Your task to perform on an android device: turn on notifications settings in the gmail app Image 0: 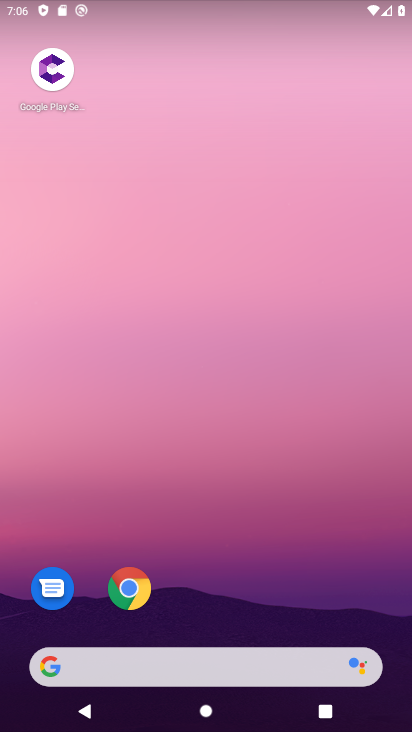
Step 0: drag from (258, 558) to (174, 145)
Your task to perform on an android device: turn on notifications settings in the gmail app Image 1: 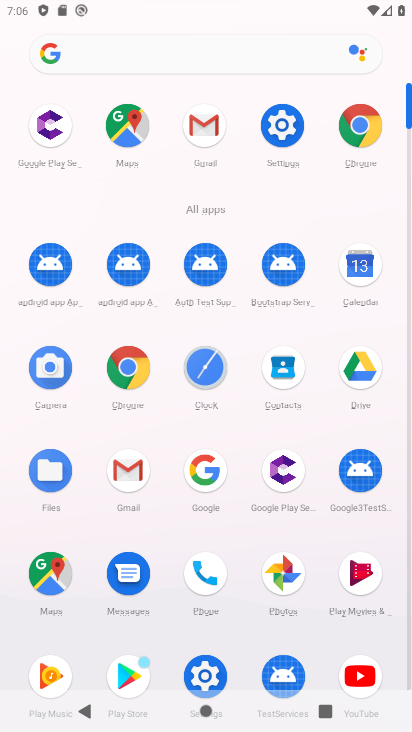
Step 1: click (127, 473)
Your task to perform on an android device: turn on notifications settings in the gmail app Image 2: 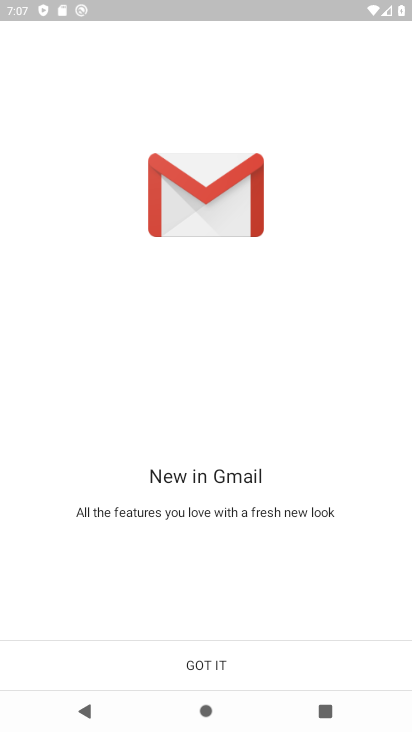
Step 2: click (197, 663)
Your task to perform on an android device: turn on notifications settings in the gmail app Image 3: 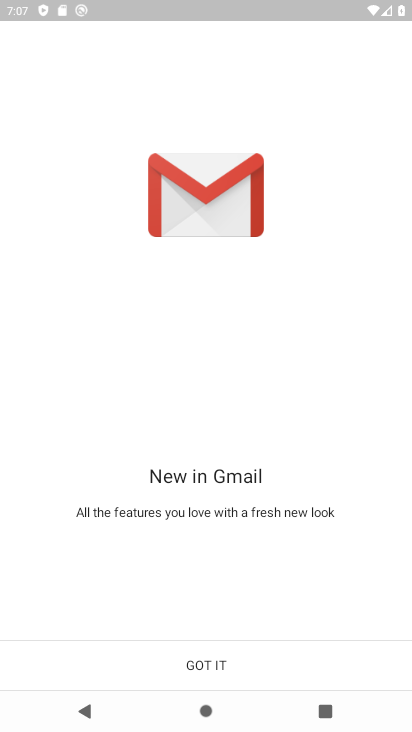
Step 3: click (197, 663)
Your task to perform on an android device: turn on notifications settings in the gmail app Image 4: 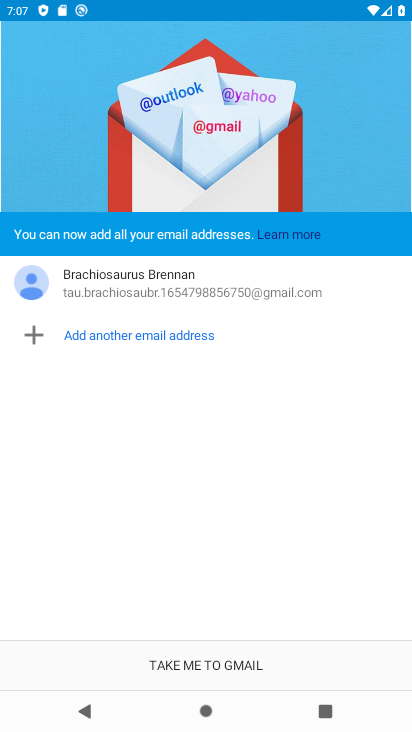
Step 4: click (197, 663)
Your task to perform on an android device: turn on notifications settings in the gmail app Image 5: 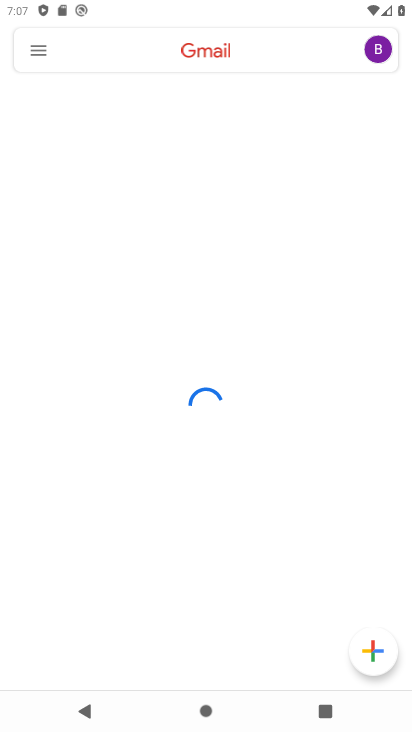
Step 5: click (39, 51)
Your task to perform on an android device: turn on notifications settings in the gmail app Image 6: 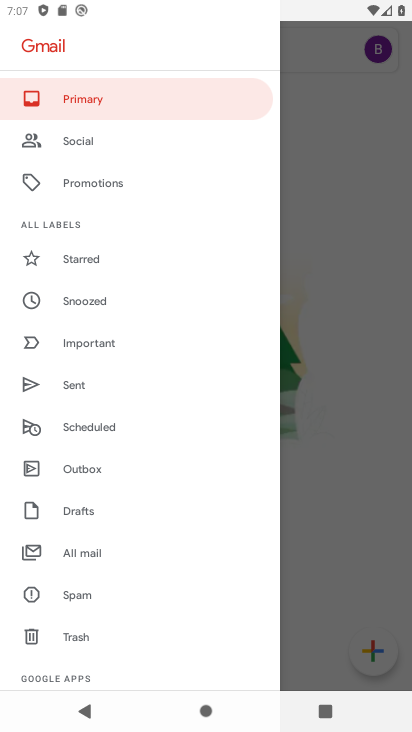
Step 6: drag from (156, 631) to (140, 294)
Your task to perform on an android device: turn on notifications settings in the gmail app Image 7: 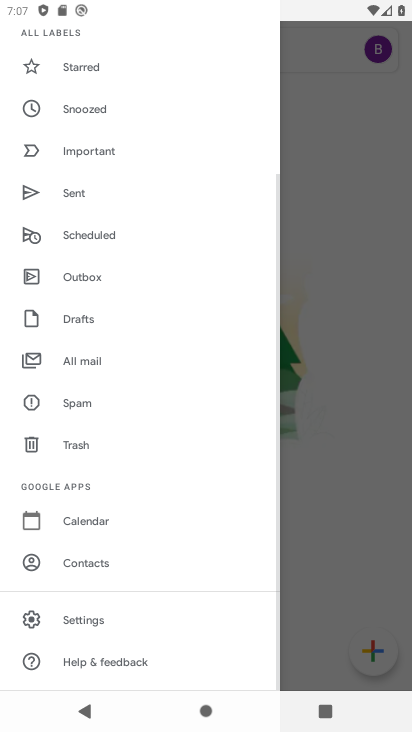
Step 7: click (90, 617)
Your task to perform on an android device: turn on notifications settings in the gmail app Image 8: 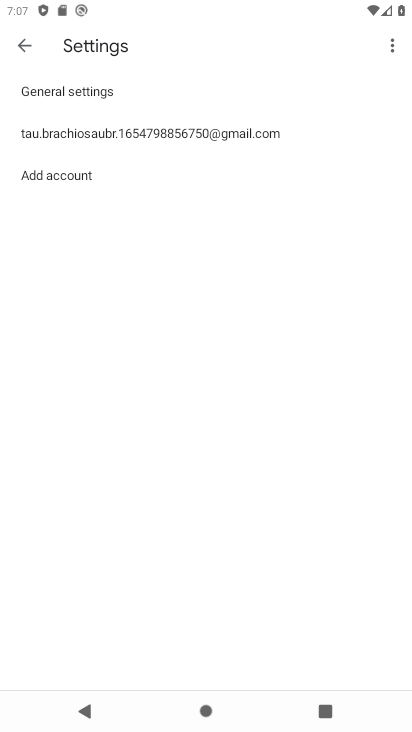
Step 8: click (70, 92)
Your task to perform on an android device: turn on notifications settings in the gmail app Image 9: 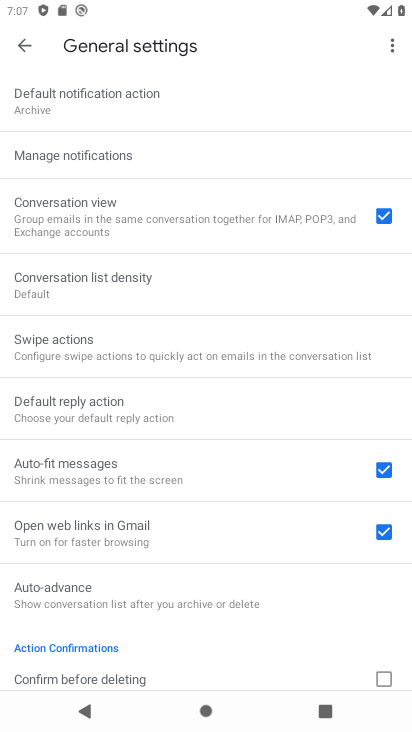
Step 9: click (79, 151)
Your task to perform on an android device: turn on notifications settings in the gmail app Image 10: 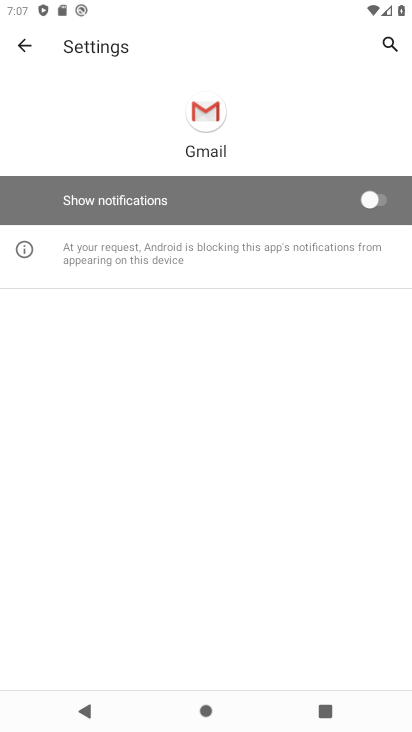
Step 10: click (369, 201)
Your task to perform on an android device: turn on notifications settings in the gmail app Image 11: 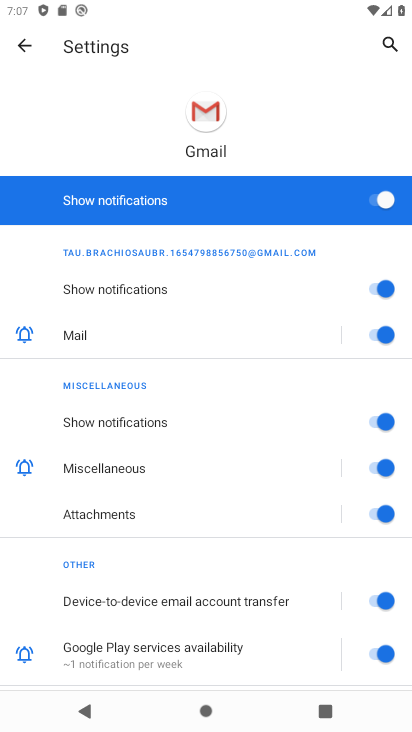
Step 11: task complete